Your task to perform on an android device: Open Chrome and go to settings Image 0: 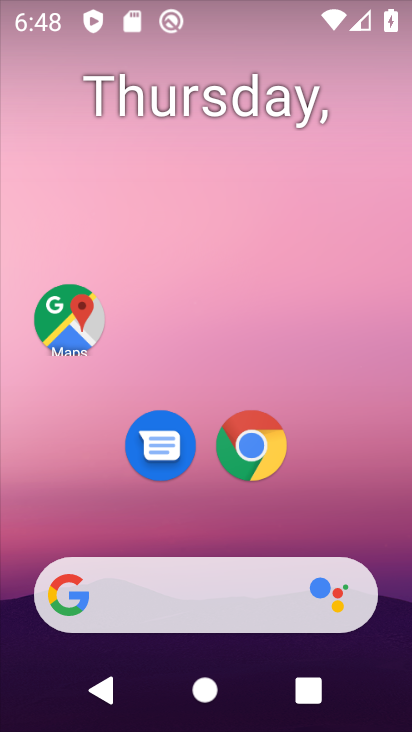
Step 0: click (246, 440)
Your task to perform on an android device: Open Chrome and go to settings Image 1: 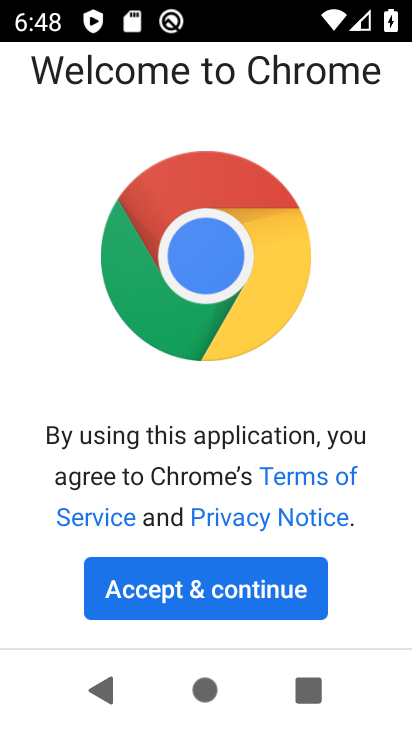
Step 1: click (220, 579)
Your task to perform on an android device: Open Chrome and go to settings Image 2: 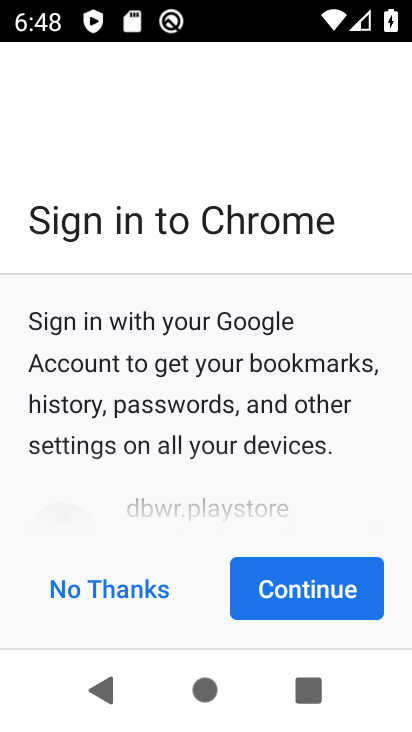
Step 2: click (272, 595)
Your task to perform on an android device: Open Chrome and go to settings Image 3: 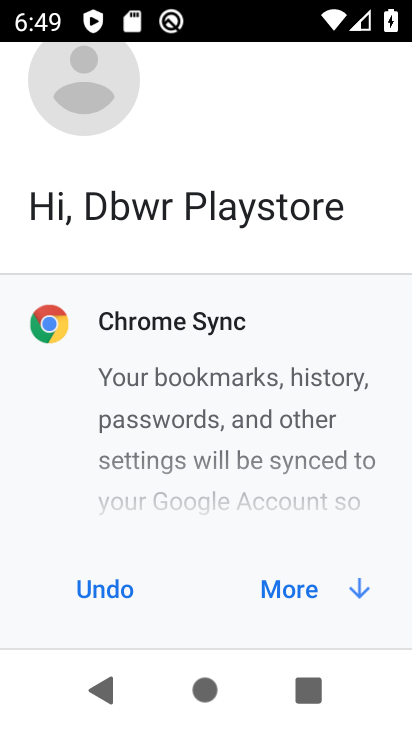
Step 3: click (357, 592)
Your task to perform on an android device: Open Chrome and go to settings Image 4: 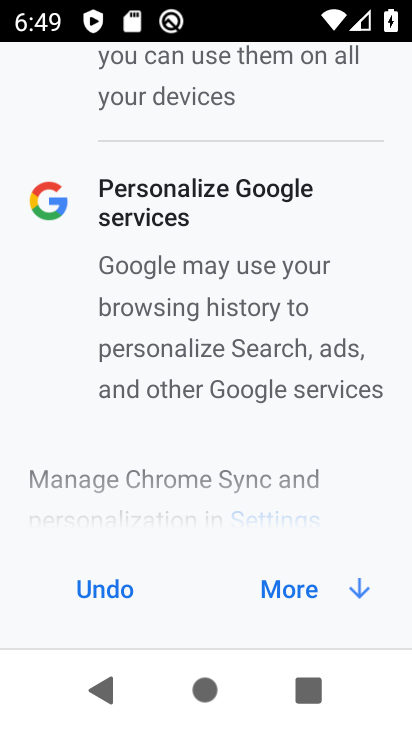
Step 4: click (295, 586)
Your task to perform on an android device: Open Chrome and go to settings Image 5: 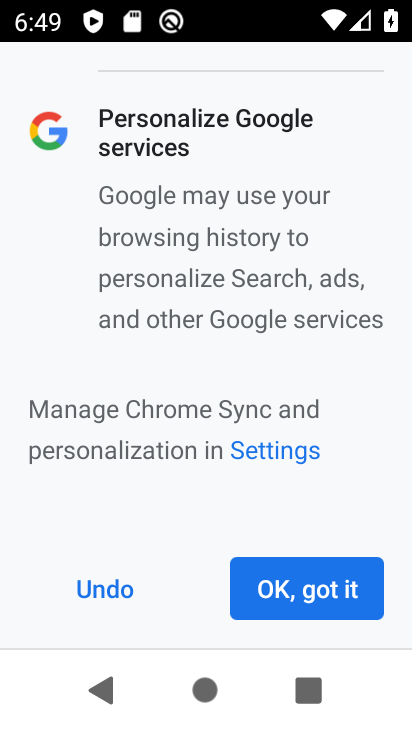
Step 5: click (281, 592)
Your task to perform on an android device: Open Chrome and go to settings Image 6: 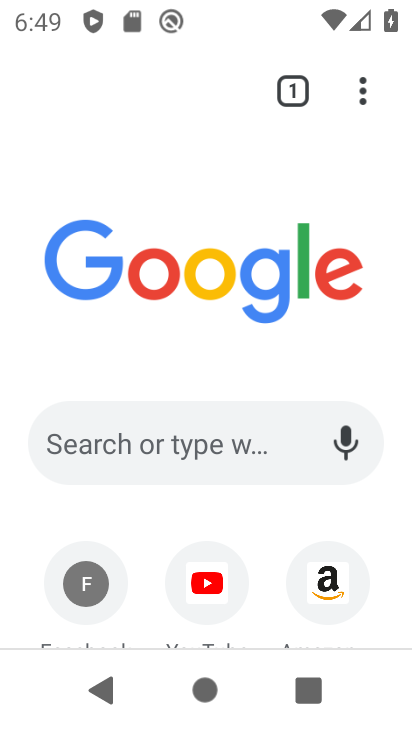
Step 6: click (362, 94)
Your task to perform on an android device: Open Chrome and go to settings Image 7: 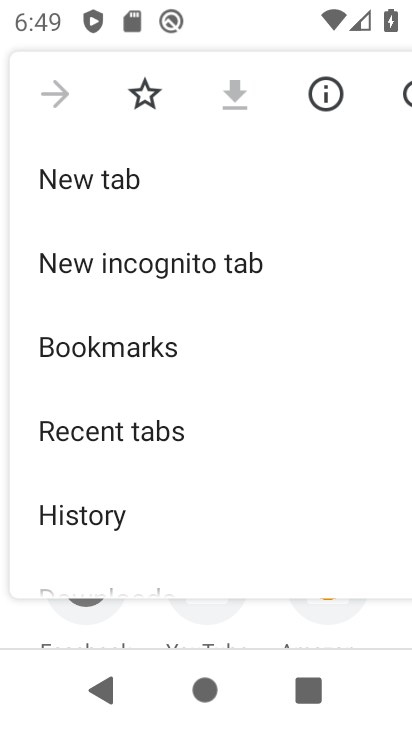
Step 7: drag from (249, 447) to (200, 132)
Your task to perform on an android device: Open Chrome and go to settings Image 8: 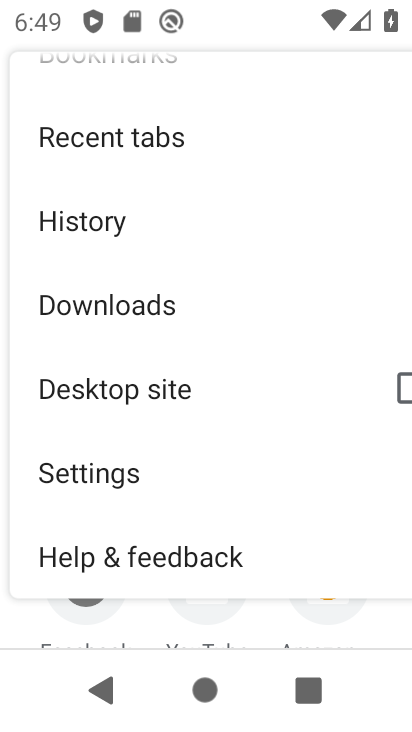
Step 8: click (85, 473)
Your task to perform on an android device: Open Chrome and go to settings Image 9: 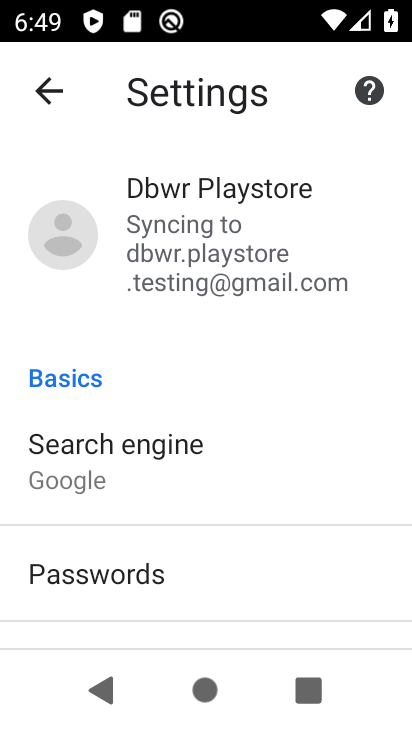
Step 9: task complete